Your task to perform on an android device: Go to Yahoo.com Image 0: 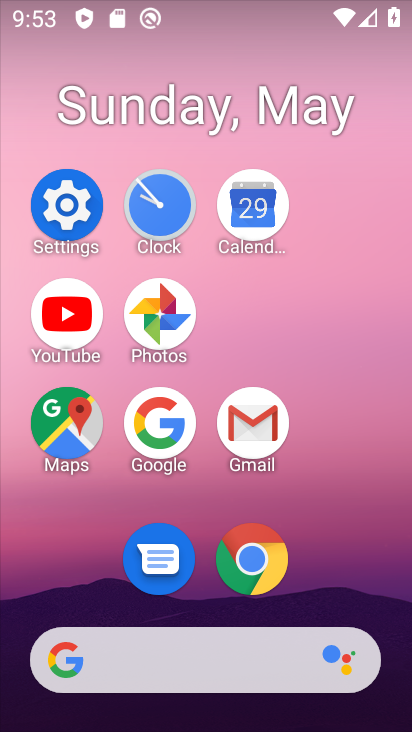
Step 0: click (288, 569)
Your task to perform on an android device: Go to Yahoo.com Image 1: 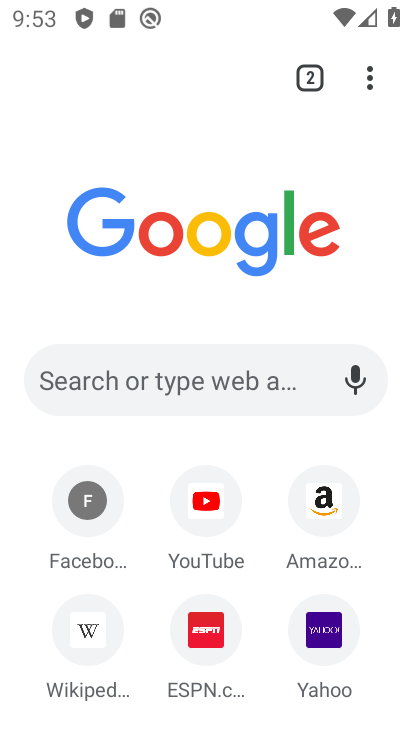
Step 1: click (322, 621)
Your task to perform on an android device: Go to Yahoo.com Image 2: 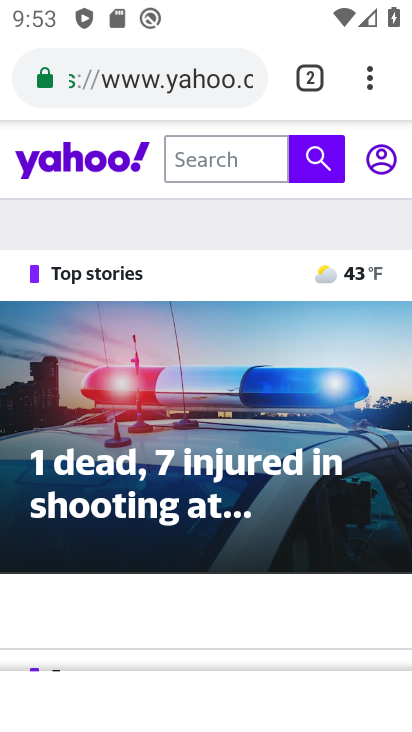
Step 2: task complete